Your task to perform on an android device: Show me the alarms in the clock app Image 0: 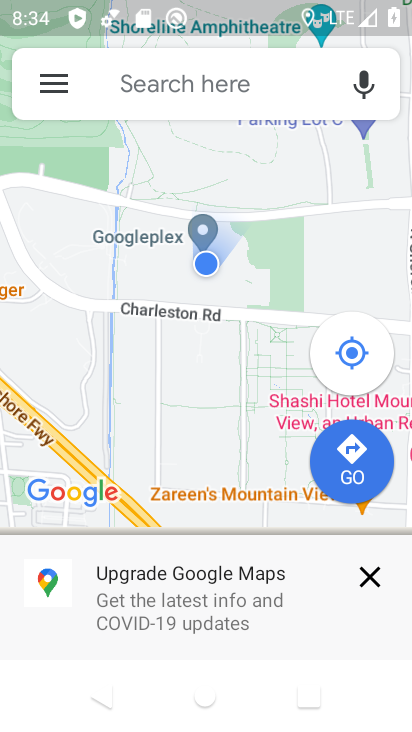
Step 0: press home button
Your task to perform on an android device: Show me the alarms in the clock app Image 1: 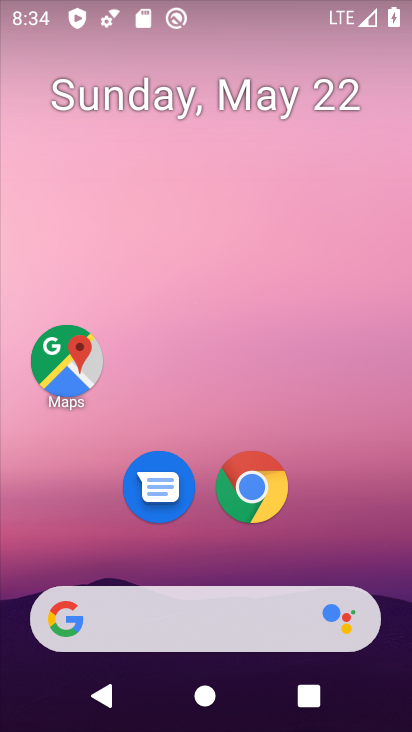
Step 1: click (22, 15)
Your task to perform on an android device: Show me the alarms in the clock app Image 2: 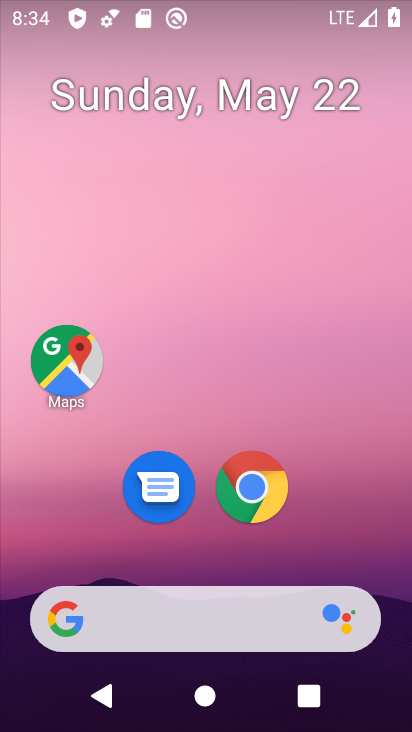
Step 2: drag from (334, 516) to (391, 0)
Your task to perform on an android device: Show me the alarms in the clock app Image 3: 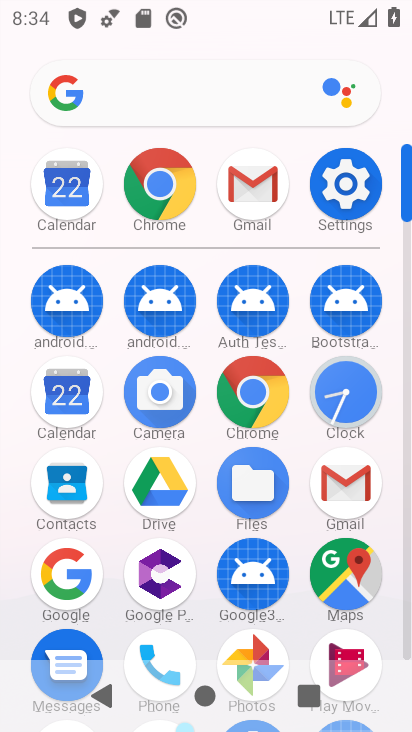
Step 3: click (352, 388)
Your task to perform on an android device: Show me the alarms in the clock app Image 4: 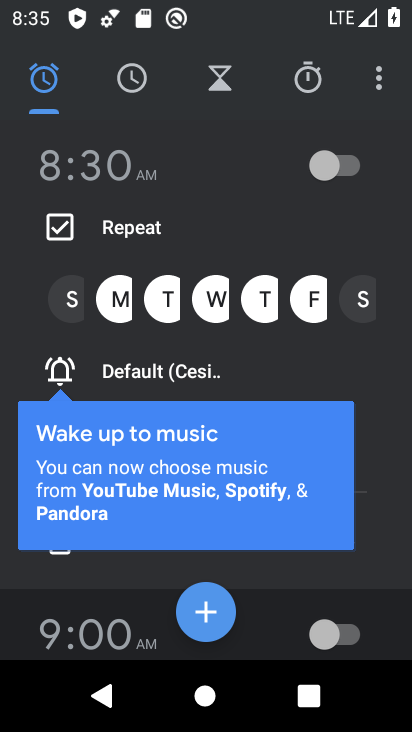
Step 4: task complete